Your task to perform on an android device: Open settings on Google Maps Image 0: 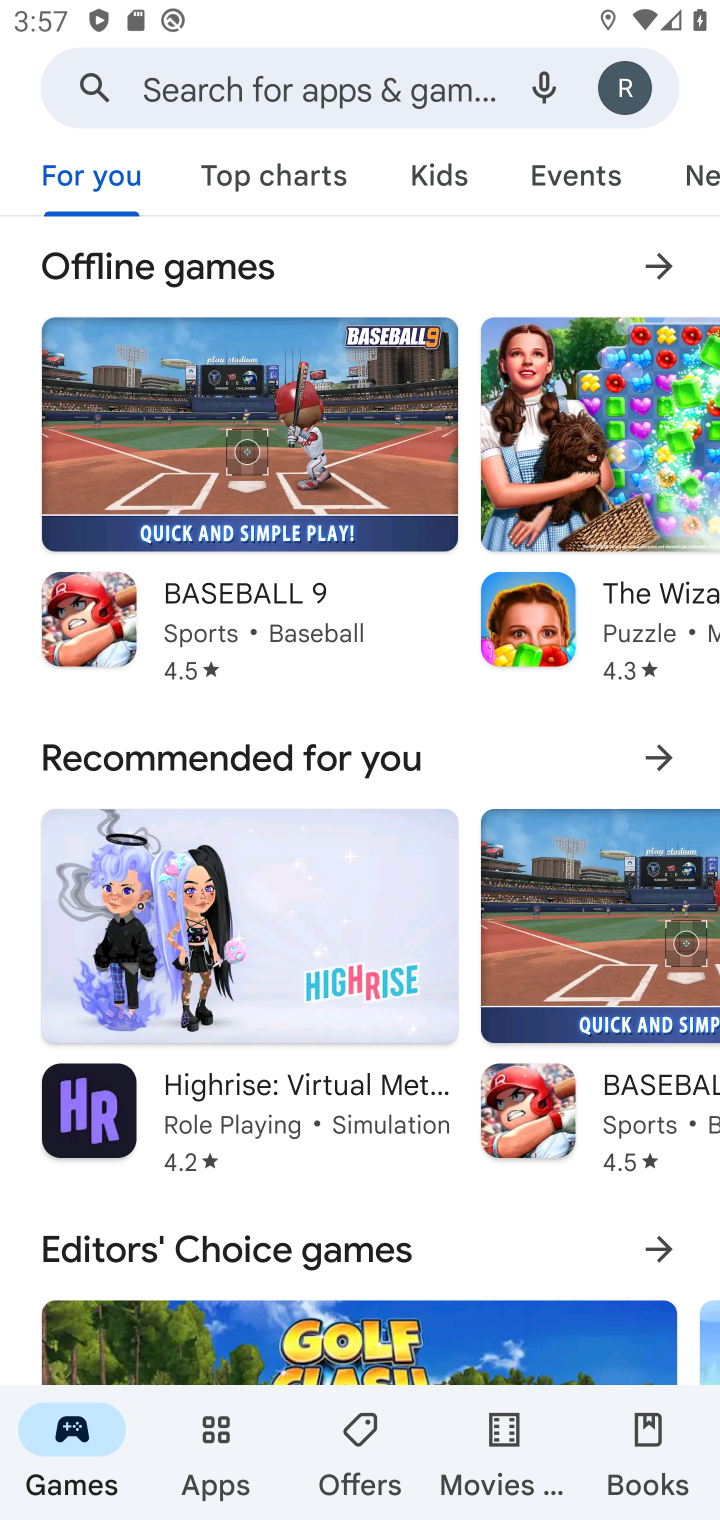
Step 0: click (638, 91)
Your task to perform on an android device: Open settings on Google Maps Image 1: 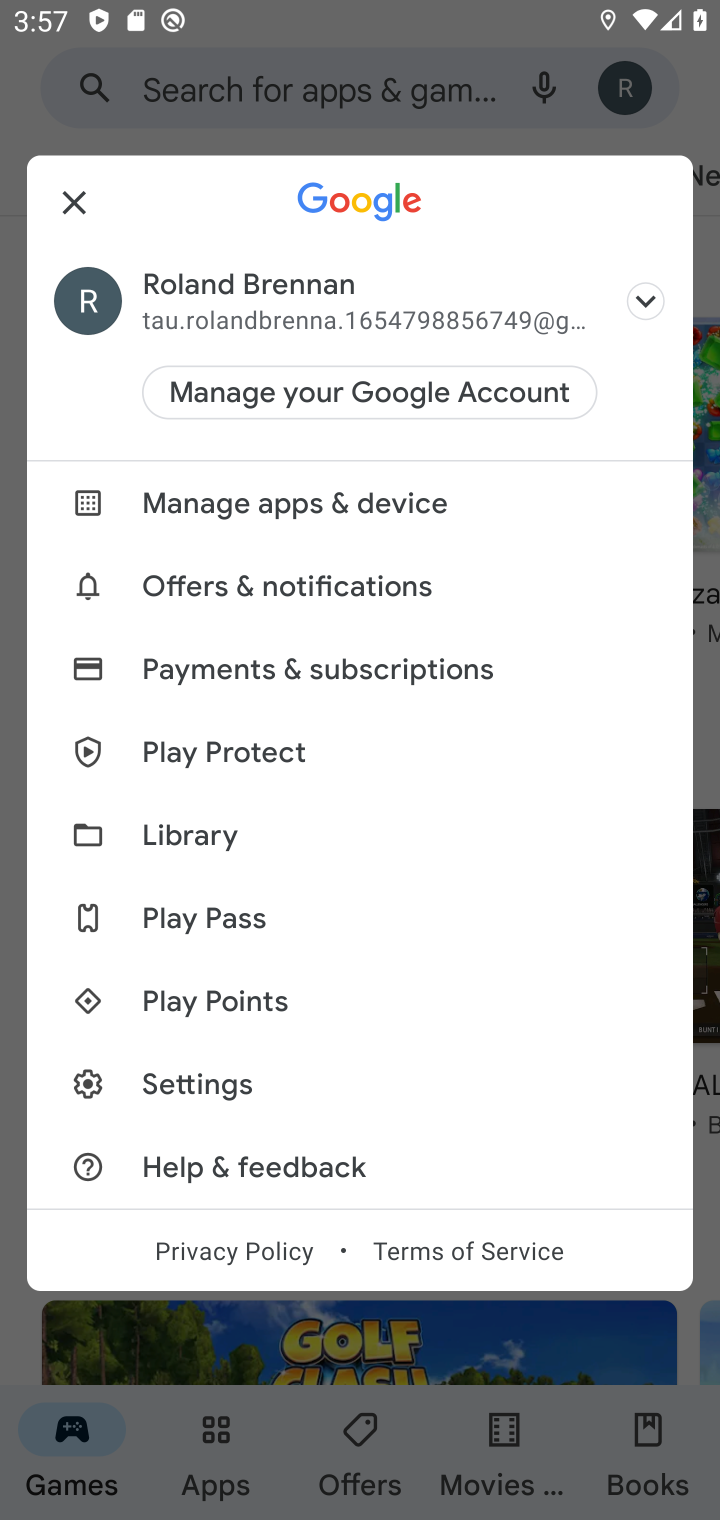
Step 1: click (219, 1059)
Your task to perform on an android device: Open settings on Google Maps Image 2: 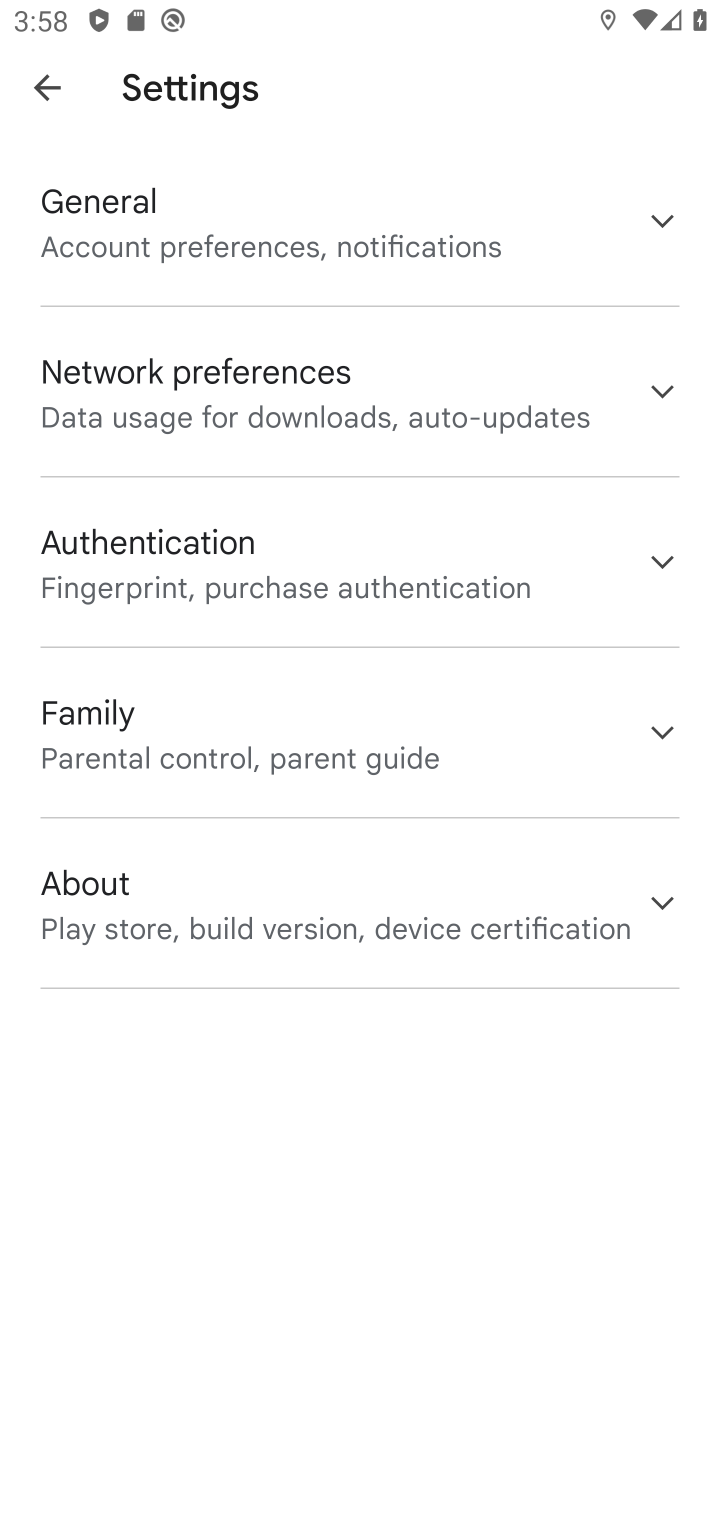
Step 2: task complete